Your task to perform on an android device: Open eBay Image 0: 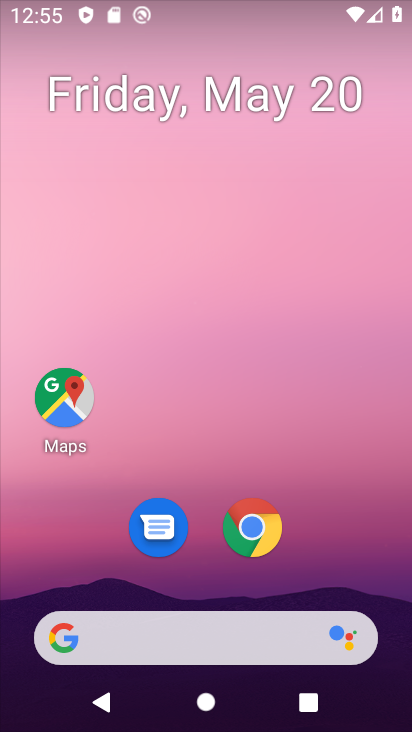
Step 0: drag from (222, 310) to (195, 202)
Your task to perform on an android device: Open eBay Image 1: 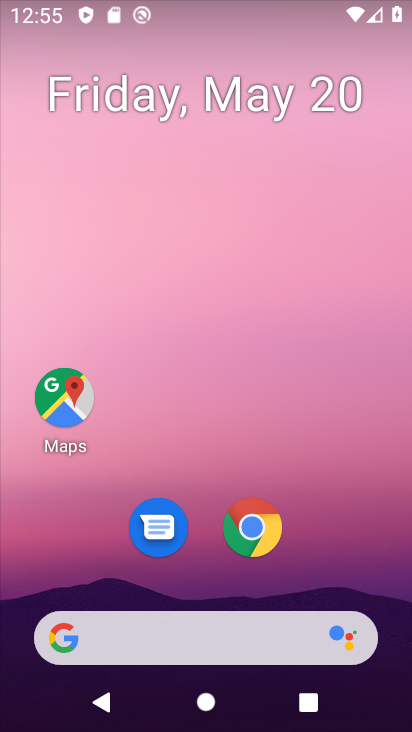
Step 1: drag from (270, 706) to (246, 108)
Your task to perform on an android device: Open eBay Image 2: 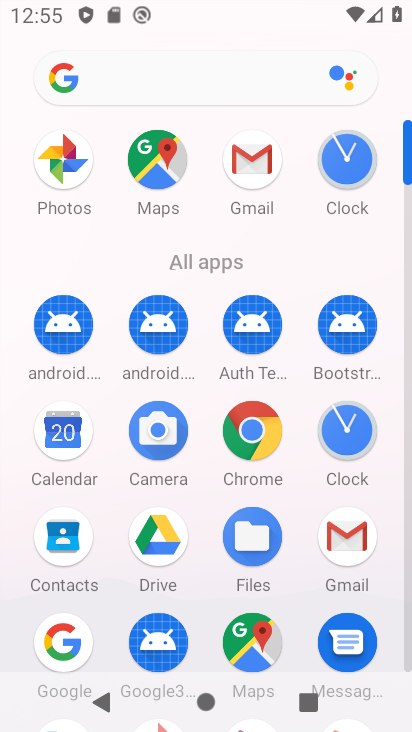
Step 2: click (247, 440)
Your task to perform on an android device: Open eBay Image 3: 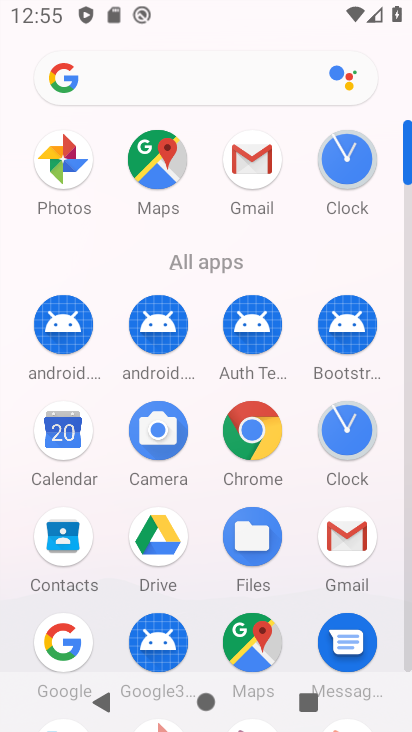
Step 3: click (247, 440)
Your task to perform on an android device: Open eBay Image 4: 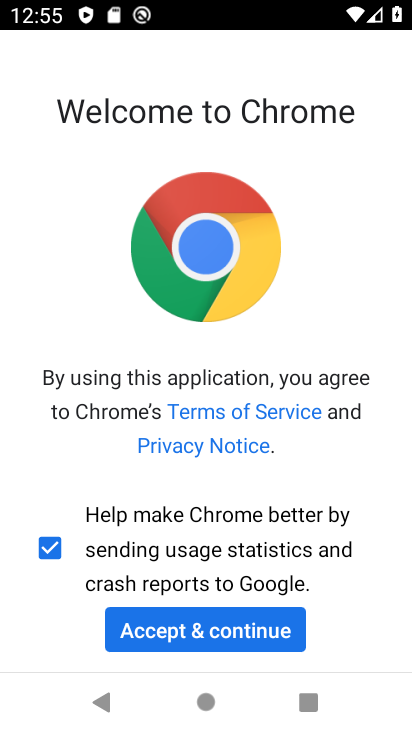
Step 4: click (222, 634)
Your task to perform on an android device: Open eBay Image 5: 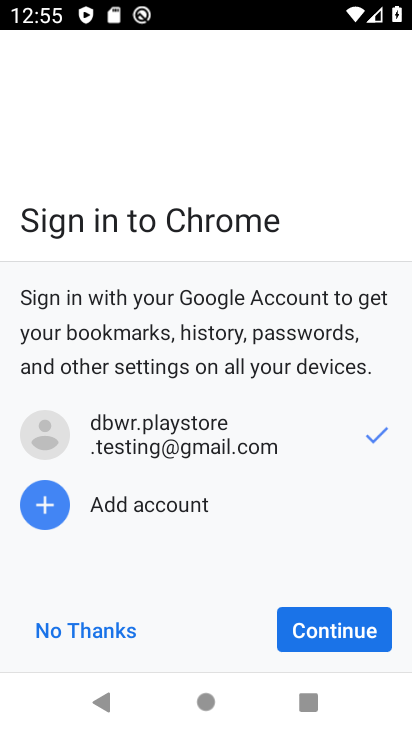
Step 5: click (318, 625)
Your task to perform on an android device: Open eBay Image 6: 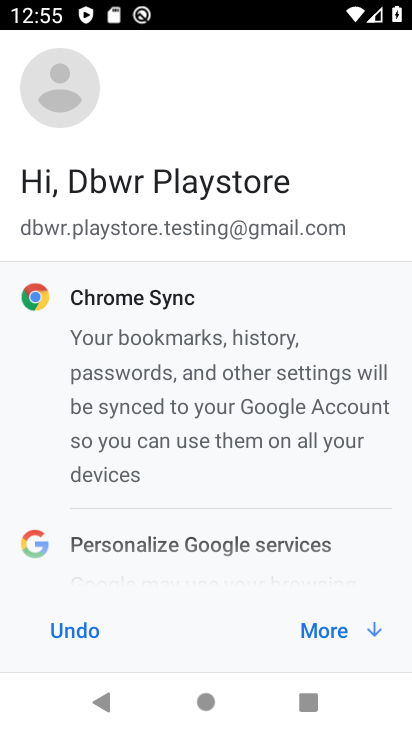
Step 6: click (333, 630)
Your task to perform on an android device: Open eBay Image 7: 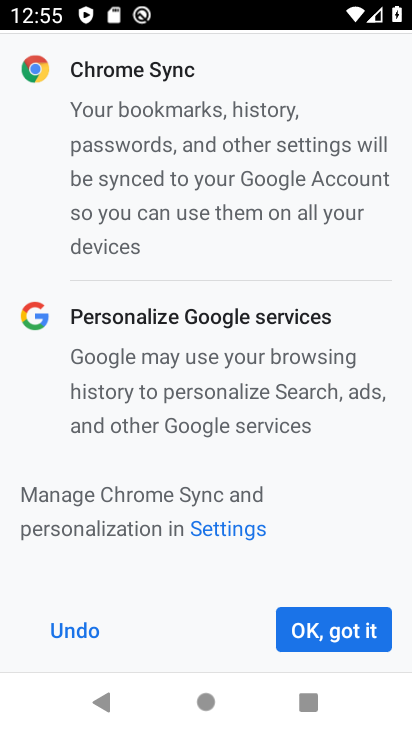
Step 7: click (350, 632)
Your task to perform on an android device: Open eBay Image 8: 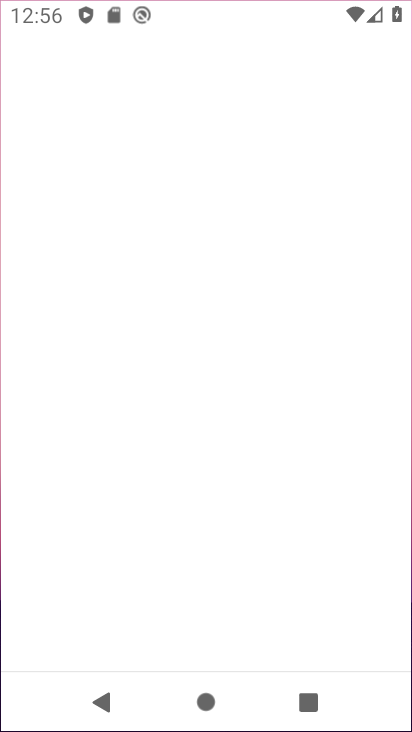
Step 8: click (332, 628)
Your task to perform on an android device: Open eBay Image 9: 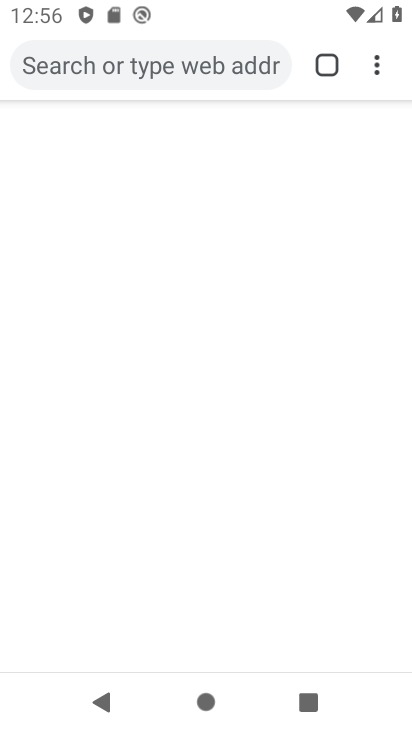
Step 9: click (332, 626)
Your task to perform on an android device: Open eBay Image 10: 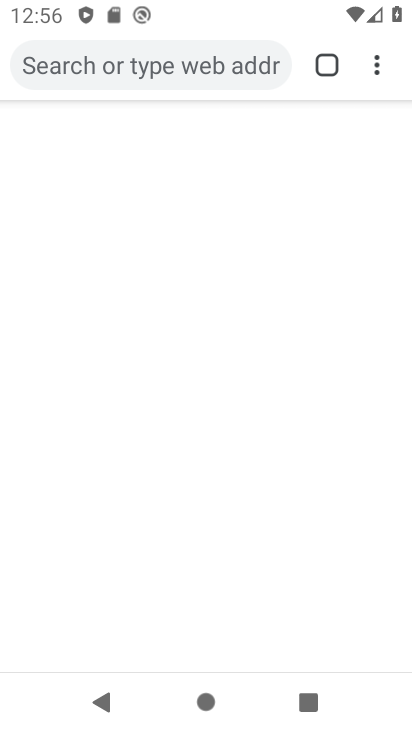
Step 10: click (332, 624)
Your task to perform on an android device: Open eBay Image 11: 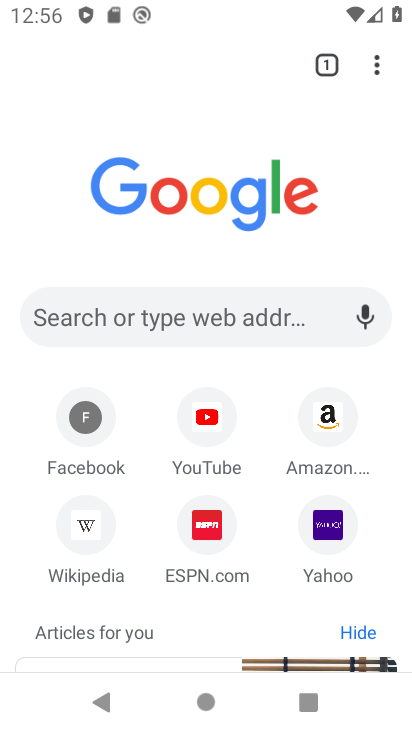
Step 11: click (95, 333)
Your task to perform on an android device: Open eBay Image 12: 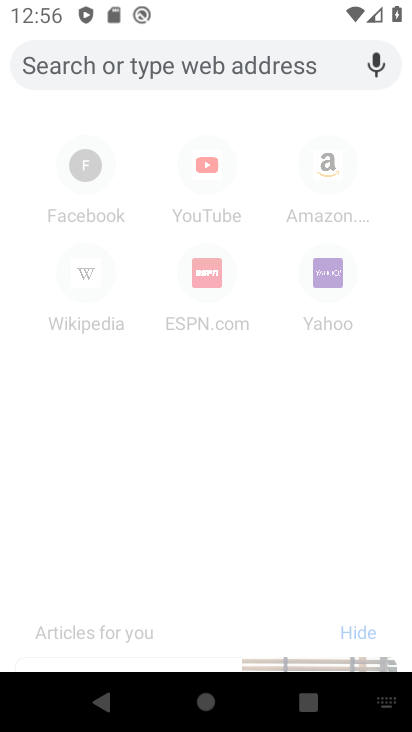
Step 12: type "ebay.com"
Your task to perform on an android device: Open eBay Image 13: 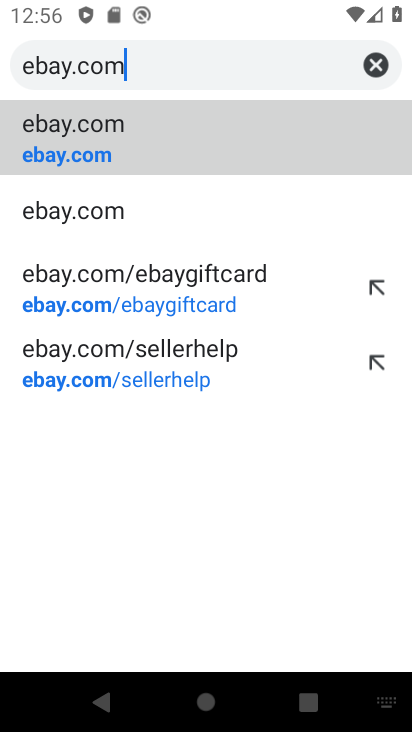
Step 13: click (72, 155)
Your task to perform on an android device: Open eBay Image 14: 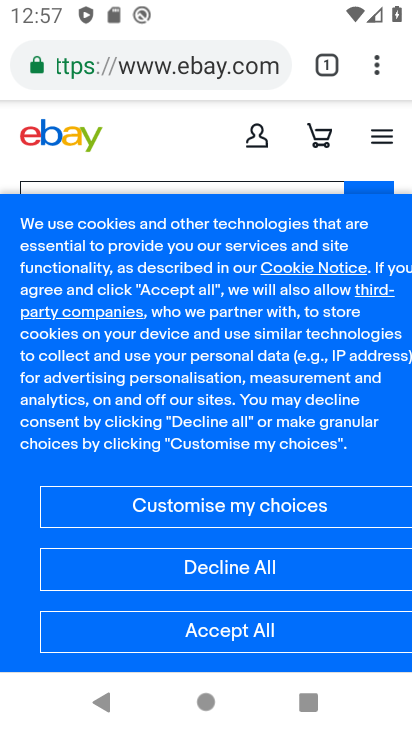
Step 14: task complete